Your task to perform on an android device: change notifications settings Image 0: 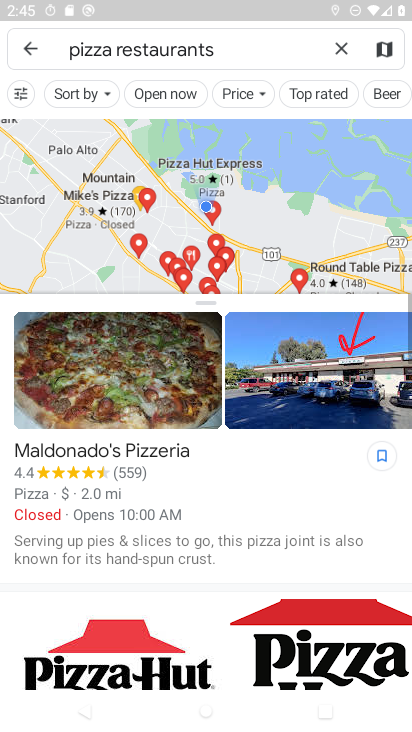
Step 0: press home button
Your task to perform on an android device: change notifications settings Image 1: 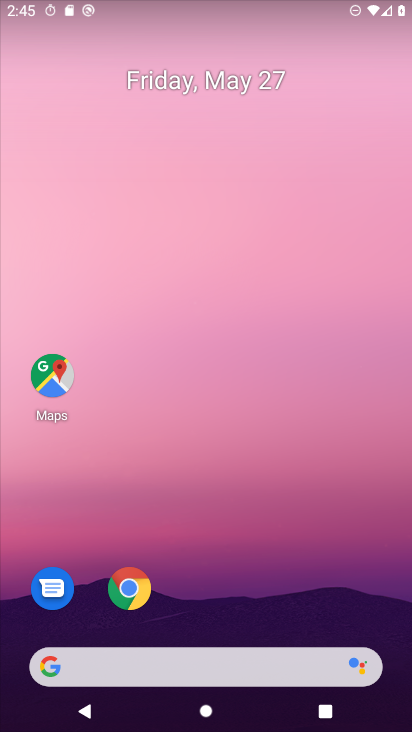
Step 1: drag from (223, 600) to (210, 154)
Your task to perform on an android device: change notifications settings Image 2: 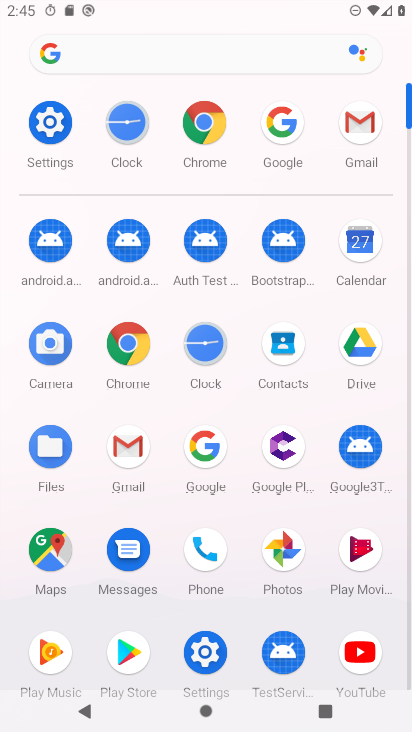
Step 2: click (49, 125)
Your task to perform on an android device: change notifications settings Image 3: 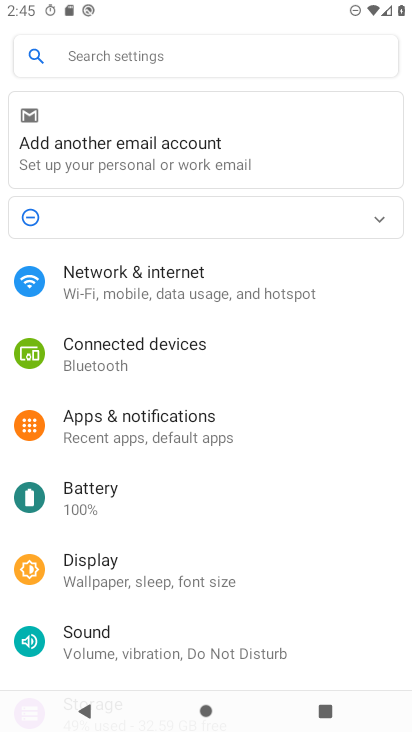
Step 3: click (161, 434)
Your task to perform on an android device: change notifications settings Image 4: 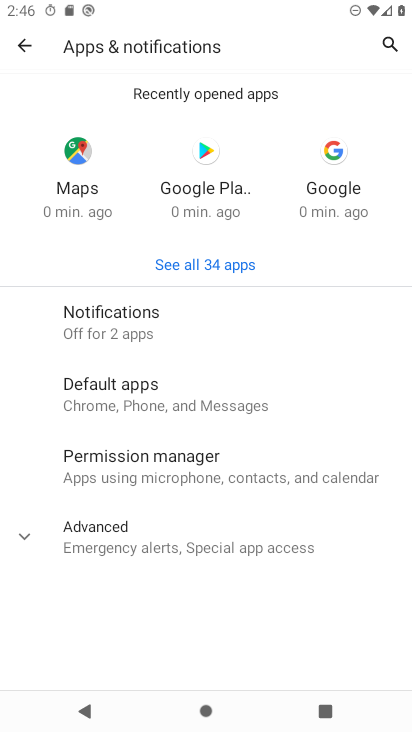
Step 4: click (220, 324)
Your task to perform on an android device: change notifications settings Image 5: 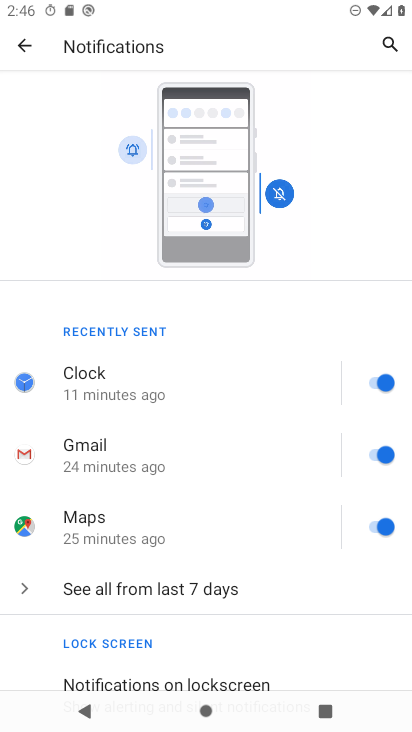
Step 5: drag from (133, 606) to (131, 260)
Your task to perform on an android device: change notifications settings Image 6: 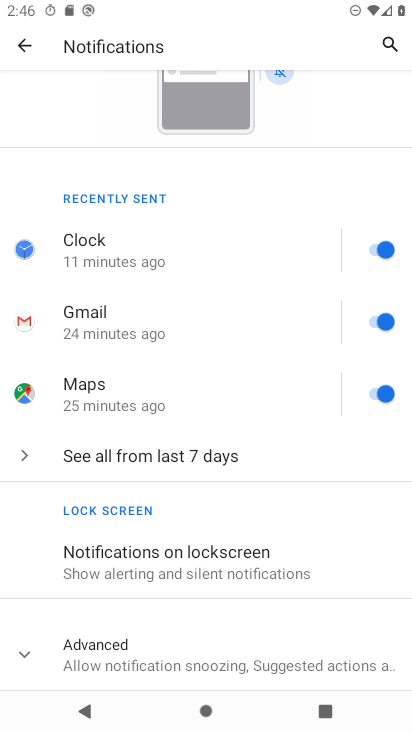
Step 6: click (147, 463)
Your task to perform on an android device: change notifications settings Image 7: 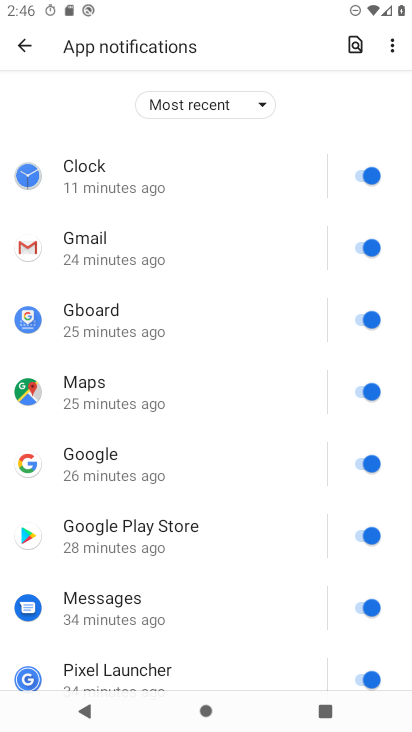
Step 7: click (366, 181)
Your task to perform on an android device: change notifications settings Image 8: 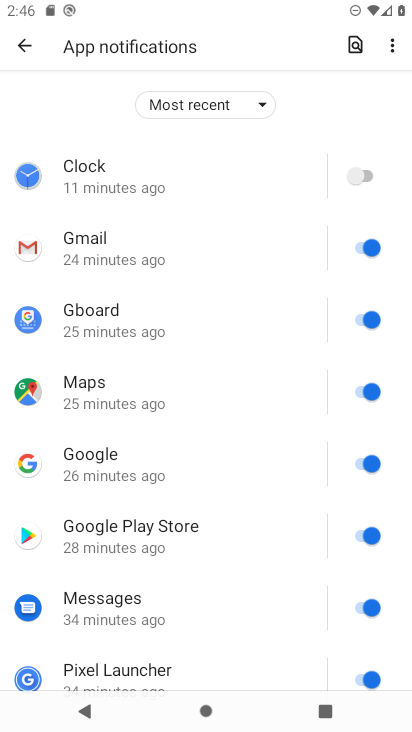
Step 8: click (361, 254)
Your task to perform on an android device: change notifications settings Image 9: 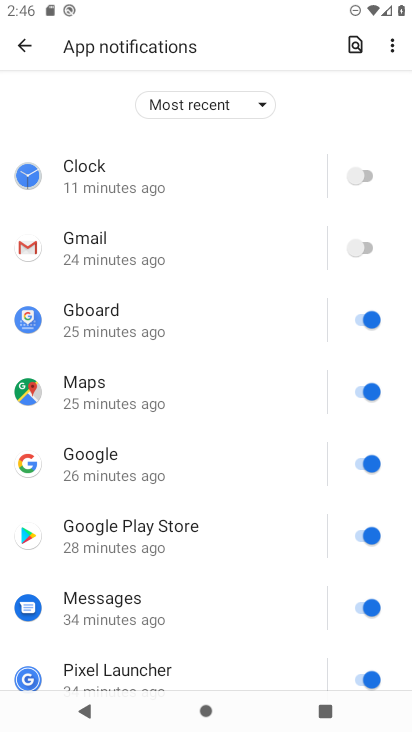
Step 9: click (350, 321)
Your task to perform on an android device: change notifications settings Image 10: 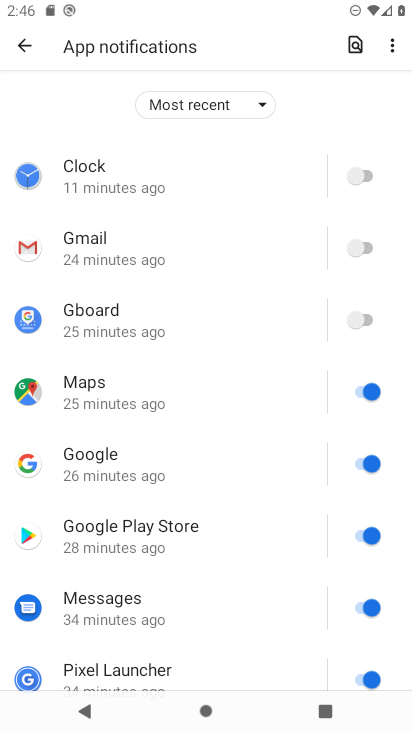
Step 10: click (363, 400)
Your task to perform on an android device: change notifications settings Image 11: 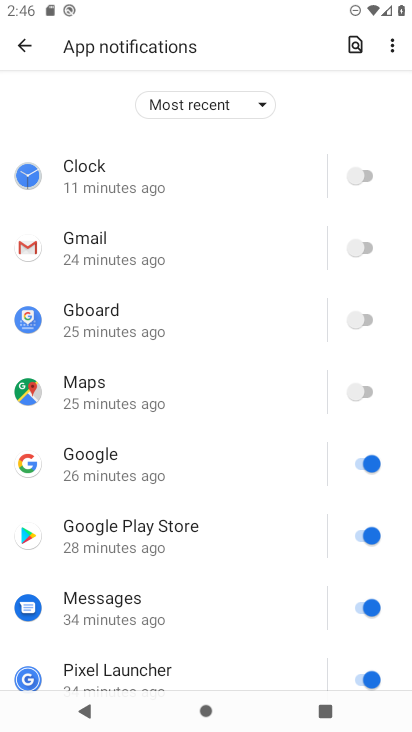
Step 11: click (375, 458)
Your task to perform on an android device: change notifications settings Image 12: 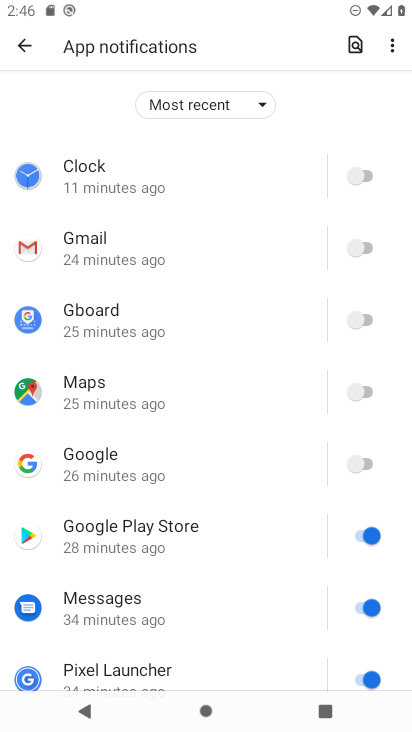
Step 12: click (356, 533)
Your task to perform on an android device: change notifications settings Image 13: 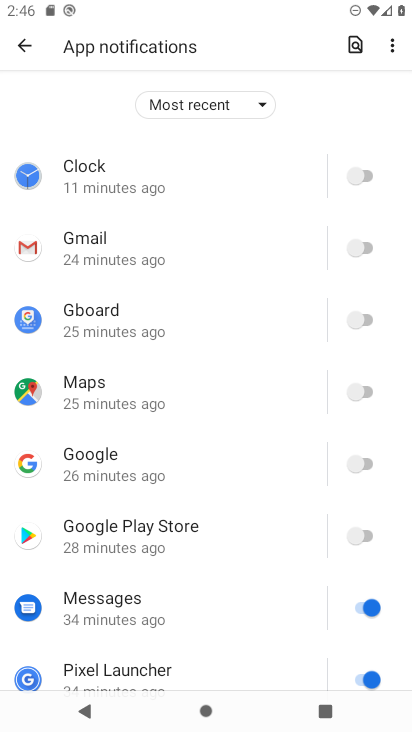
Step 13: click (348, 602)
Your task to perform on an android device: change notifications settings Image 14: 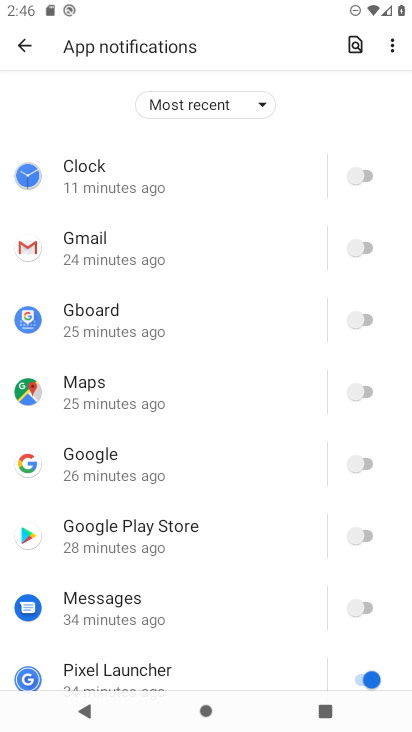
Step 14: click (363, 677)
Your task to perform on an android device: change notifications settings Image 15: 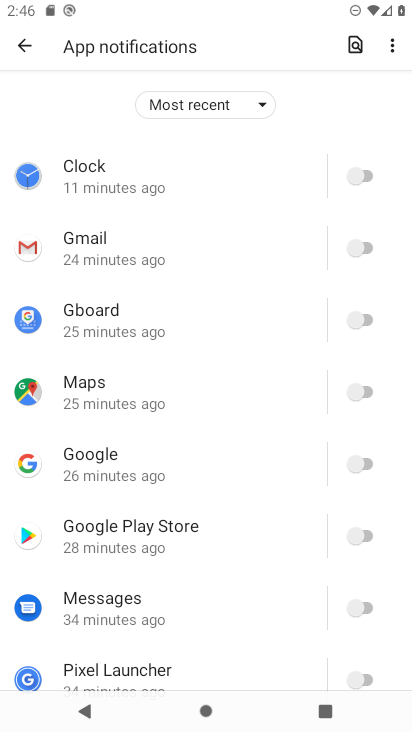
Step 15: drag from (165, 552) to (193, 122)
Your task to perform on an android device: change notifications settings Image 16: 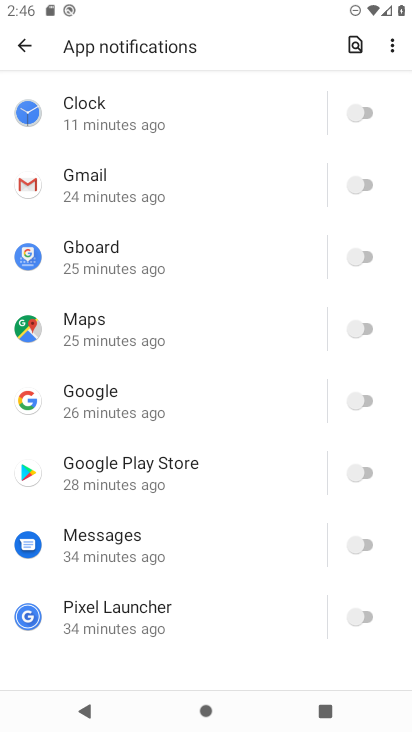
Step 16: click (27, 50)
Your task to perform on an android device: change notifications settings Image 17: 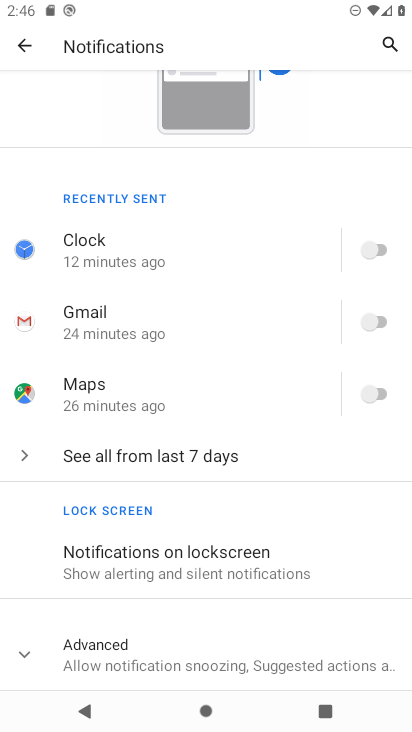
Step 17: click (122, 651)
Your task to perform on an android device: change notifications settings Image 18: 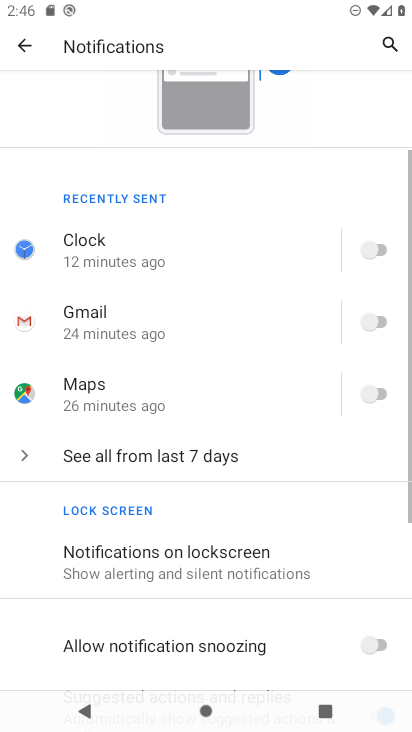
Step 18: drag from (190, 592) to (210, 118)
Your task to perform on an android device: change notifications settings Image 19: 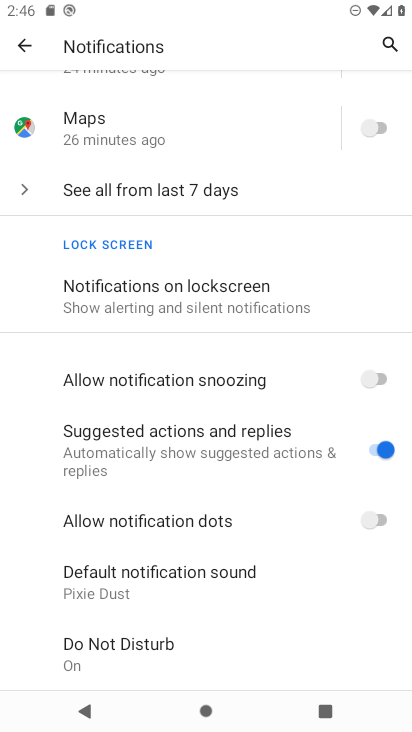
Step 19: click (364, 378)
Your task to perform on an android device: change notifications settings Image 20: 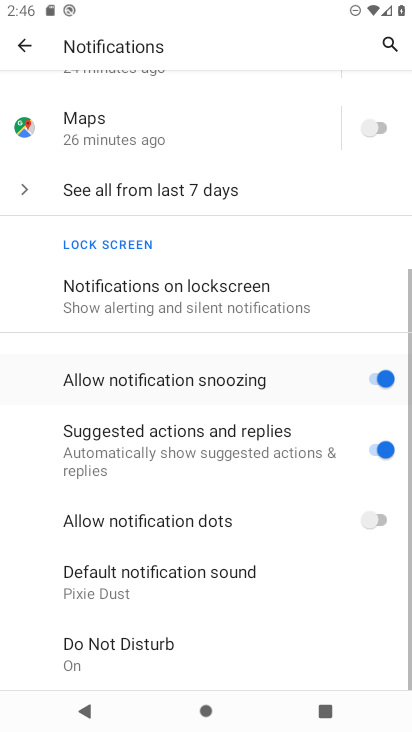
Step 20: click (378, 510)
Your task to perform on an android device: change notifications settings Image 21: 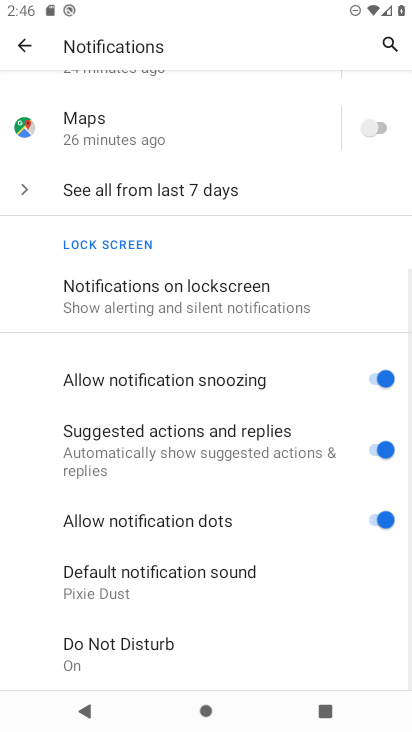
Step 21: click (239, 288)
Your task to perform on an android device: change notifications settings Image 22: 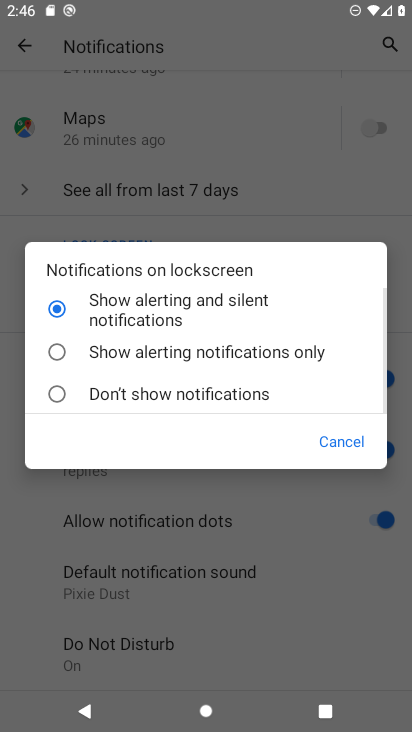
Step 22: click (160, 354)
Your task to perform on an android device: change notifications settings Image 23: 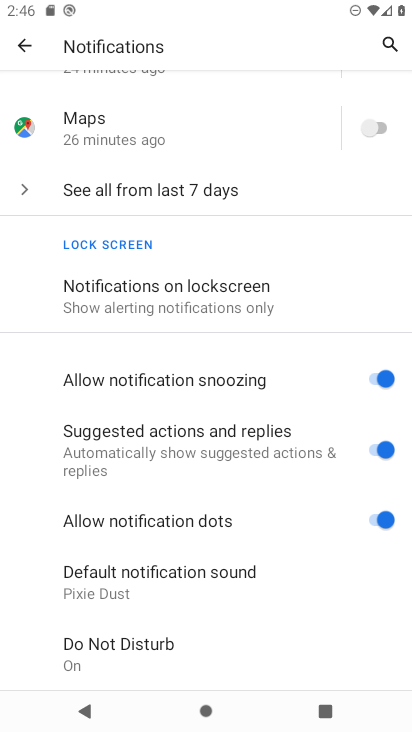
Step 23: task complete